Your task to perform on an android device: See recent photos Image 0: 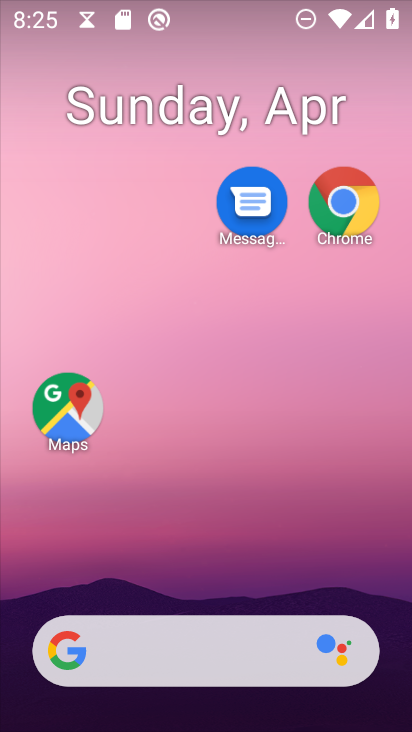
Step 0: drag from (196, 658) to (304, 45)
Your task to perform on an android device: See recent photos Image 1: 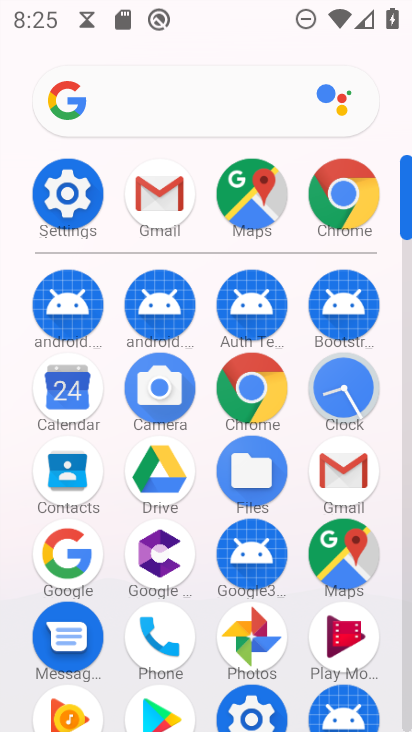
Step 1: click (257, 633)
Your task to perform on an android device: See recent photos Image 2: 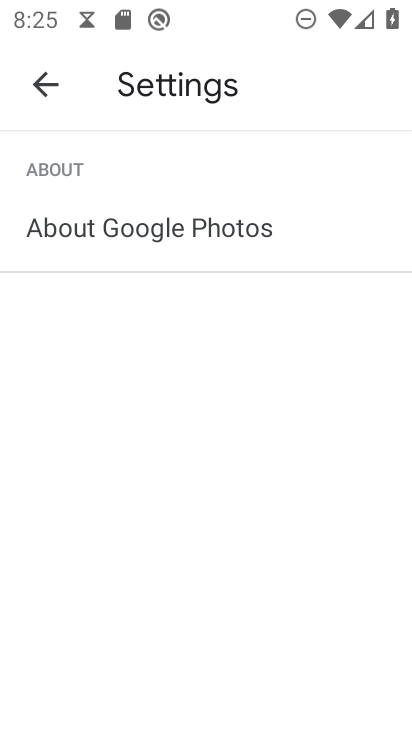
Step 2: click (47, 87)
Your task to perform on an android device: See recent photos Image 3: 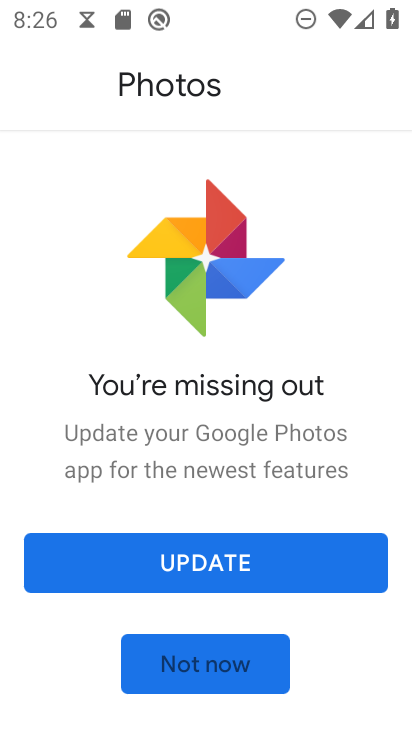
Step 3: click (234, 567)
Your task to perform on an android device: See recent photos Image 4: 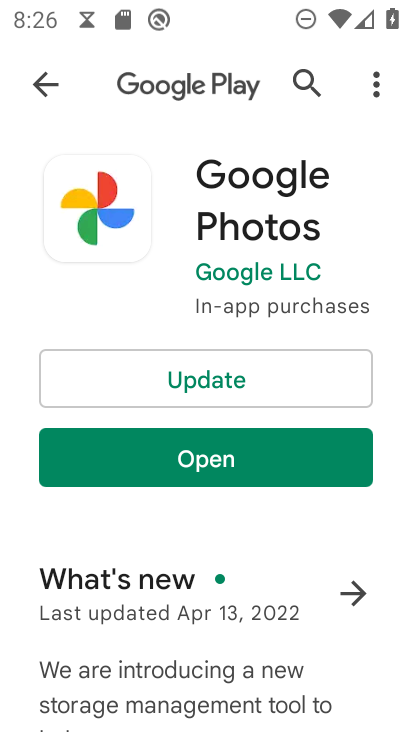
Step 4: click (243, 458)
Your task to perform on an android device: See recent photos Image 5: 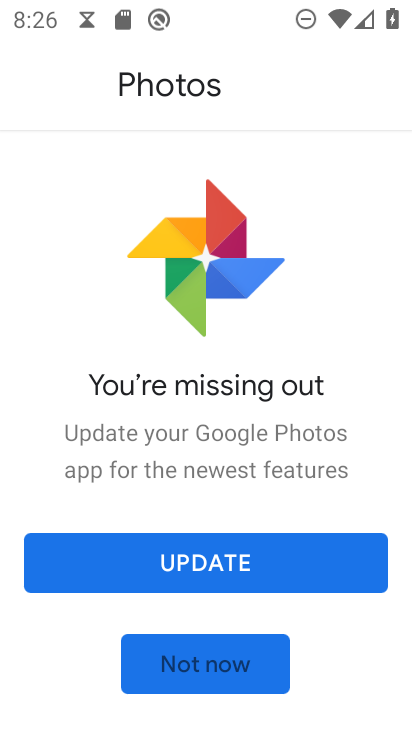
Step 5: click (215, 550)
Your task to perform on an android device: See recent photos Image 6: 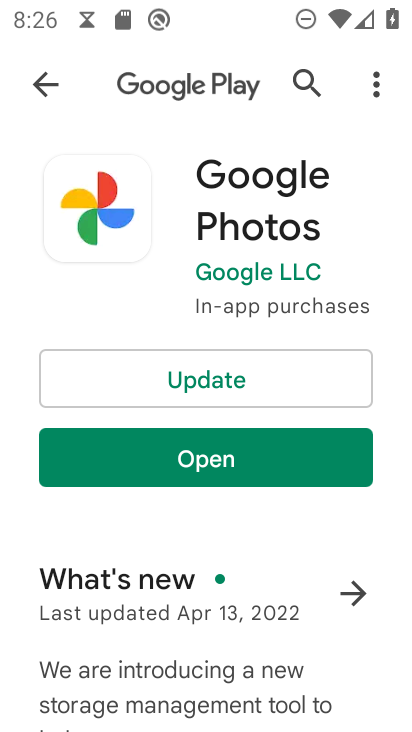
Step 6: click (206, 452)
Your task to perform on an android device: See recent photos Image 7: 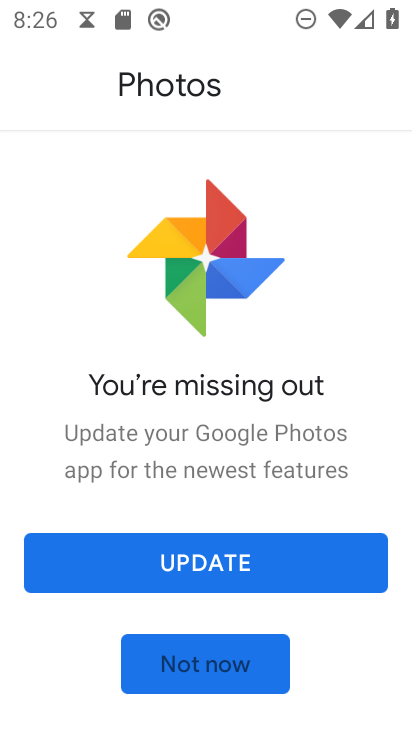
Step 7: click (199, 547)
Your task to perform on an android device: See recent photos Image 8: 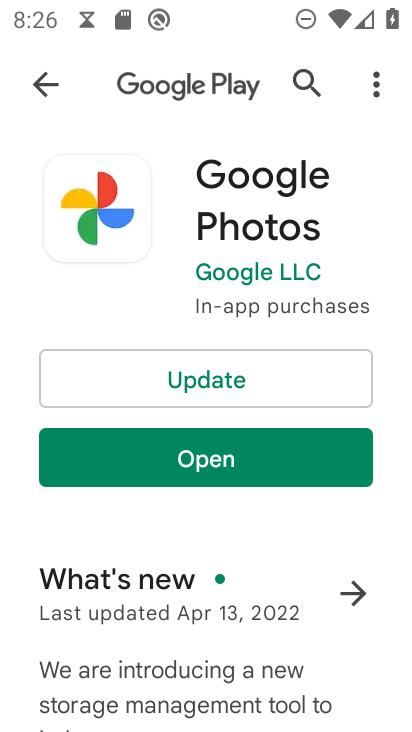
Step 8: click (222, 455)
Your task to perform on an android device: See recent photos Image 9: 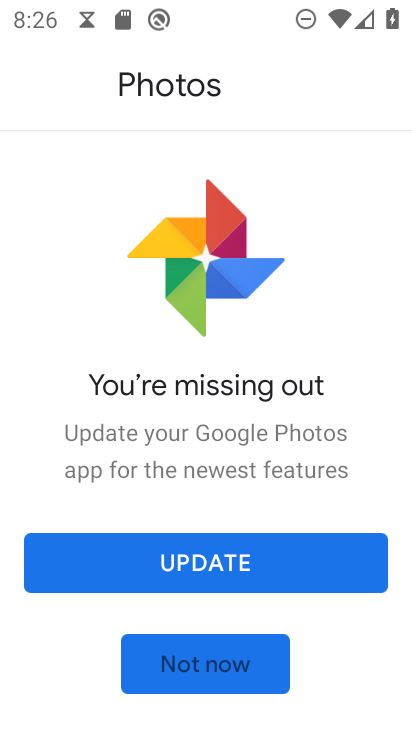
Step 9: click (240, 552)
Your task to perform on an android device: See recent photos Image 10: 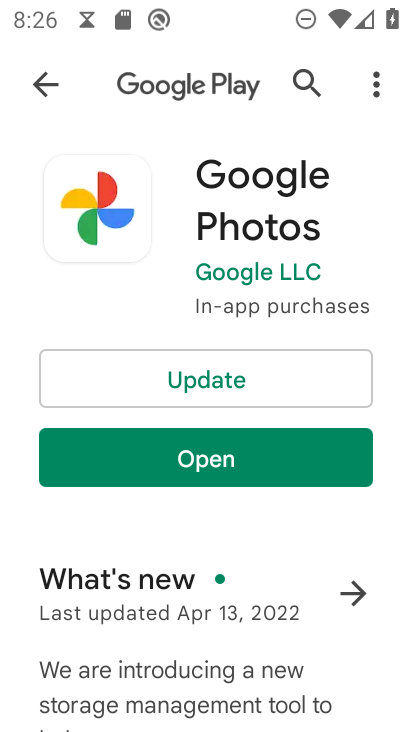
Step 10: drag from (180, 543) to (229, 546)
Your task to perform on an android device: See recent photos Image 11: 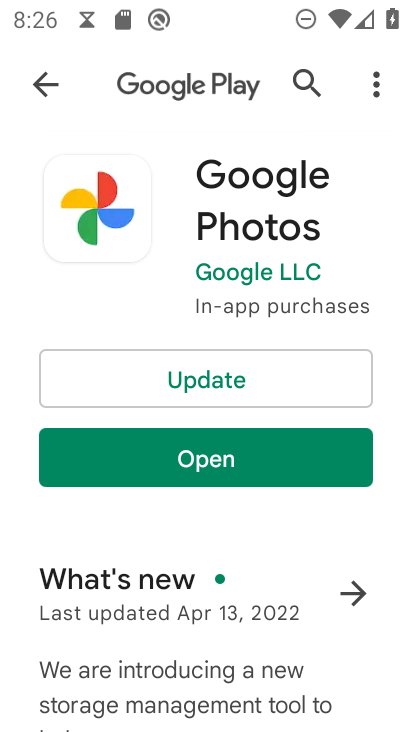
Step 11: click (193, 462)
Your task to perform on an android device: See recent photos Image 12: 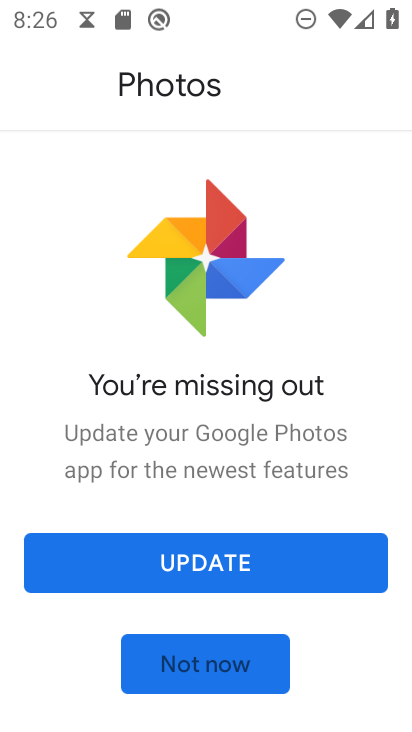
Step 12: click (208, 565)
Your task to perform on an android device: See recent photos Image 13: 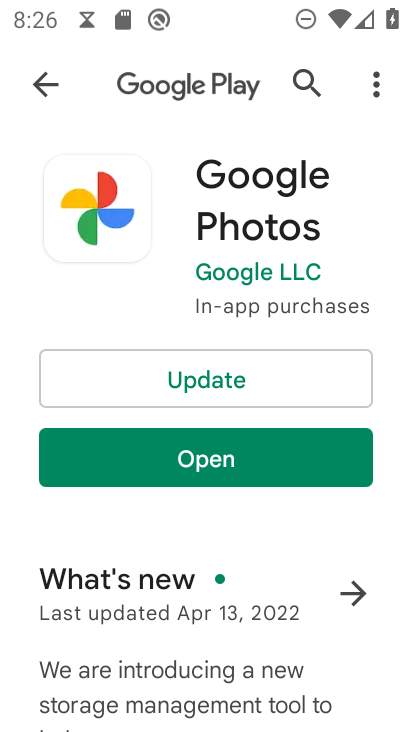
Step 13: click (233, 377)
Your task to perform on an android device: See recent photos Image 14: 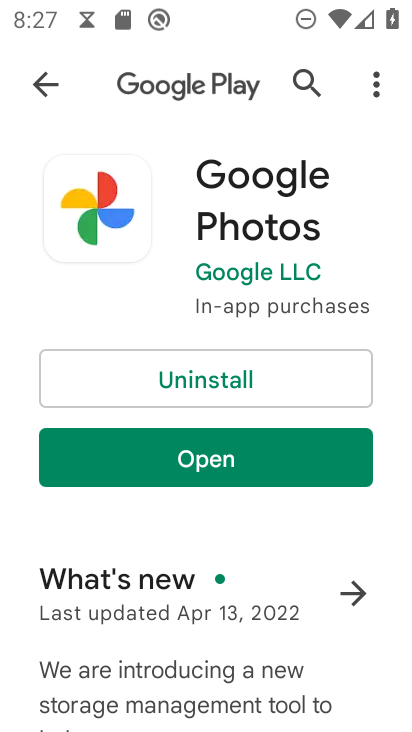
Step 14: click (215, 451)
Your task to perform on an android device: See recent photos Image 15: 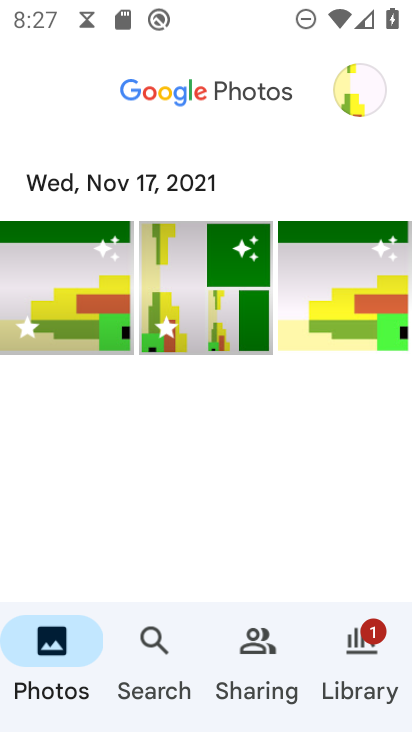
Step 15: click (359, 677)
Your task to perform on an android device: See recent photos Image 16: 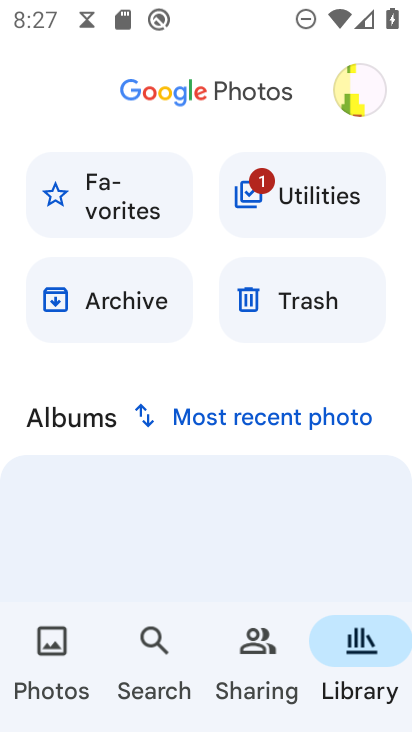
Step 16: click (257, 419)
Your task to perform on an android device: See recent photos Image 17: 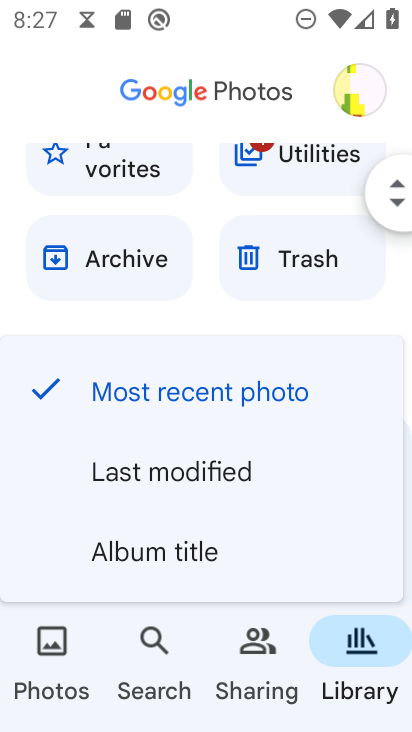
Step 17: click (257, 390)
Your task to perform on an android device: See recent photos Image 18: 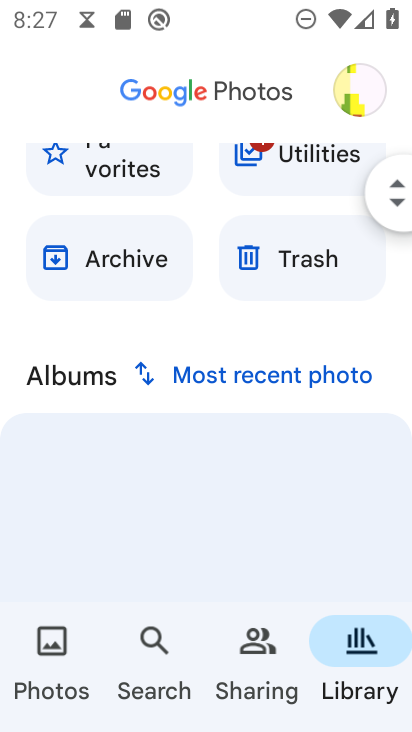
Step 18: task complete